Your task to perform on an android device: Open calendar and show me the fourth week of next month Image 0: 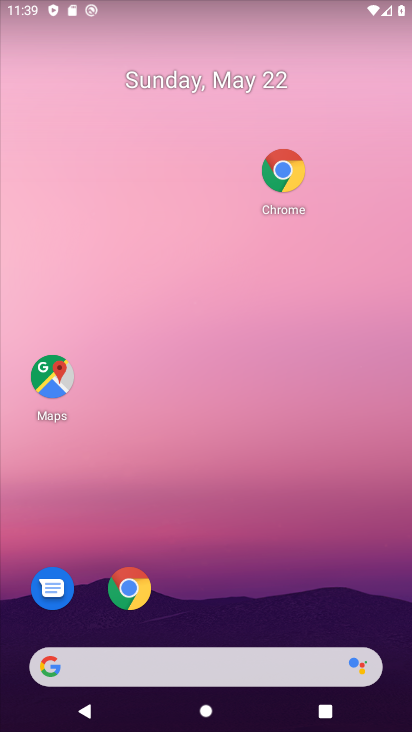
Step 0: drag from (324, 594) to (233, 215)
Your task to perform on an android device: Open calendar and show me the fourth week of next month Image 1: 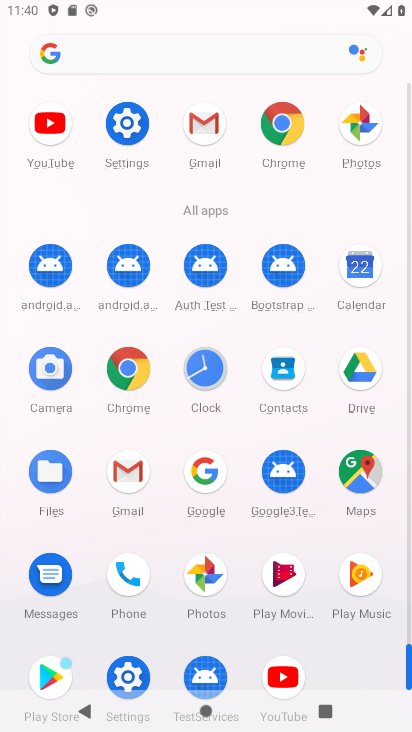
Step 1: click (360, 266)
Your task to perform on an android device: Open calendar and show me the fourth week of next month Image 2: 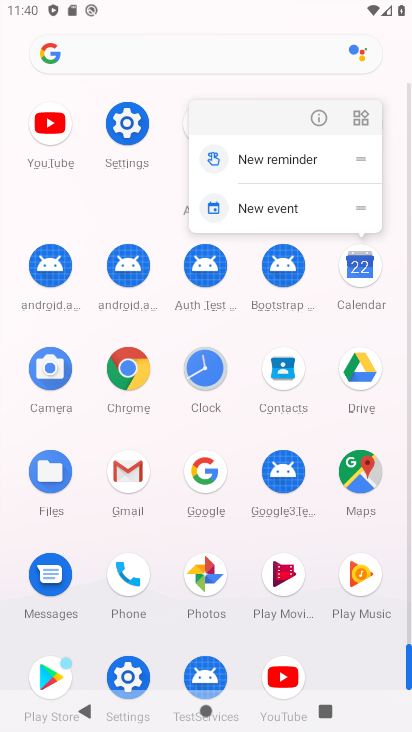
Step 2: click (361, 277)
Your task to perform on an android device: Open calendar and show me the fourth week of next month Image 3: 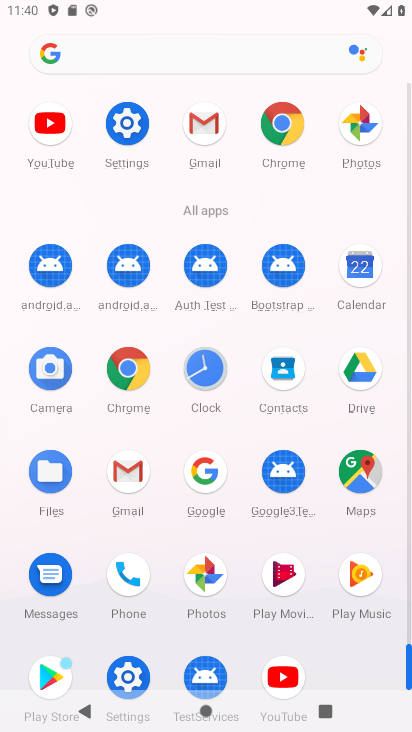
Step 3: click (372, 270)
Your task to perform on an android device: Open calendar and show me the fourth week of next month Image 4: 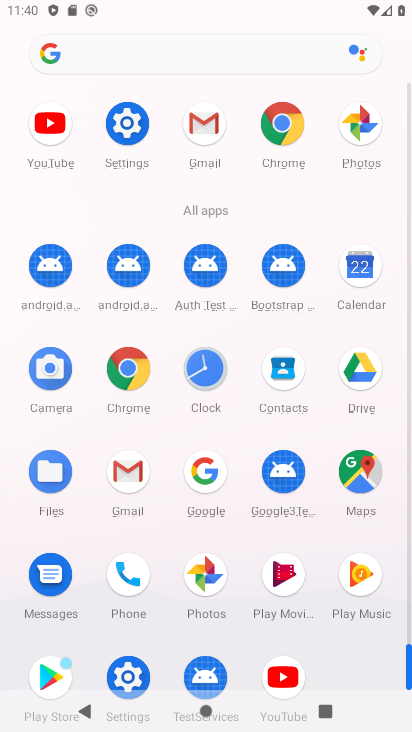
Step 4: click (370, 276)
Your task to perform on an android device: Open calendar and show me the fourth week of next month Image 5: 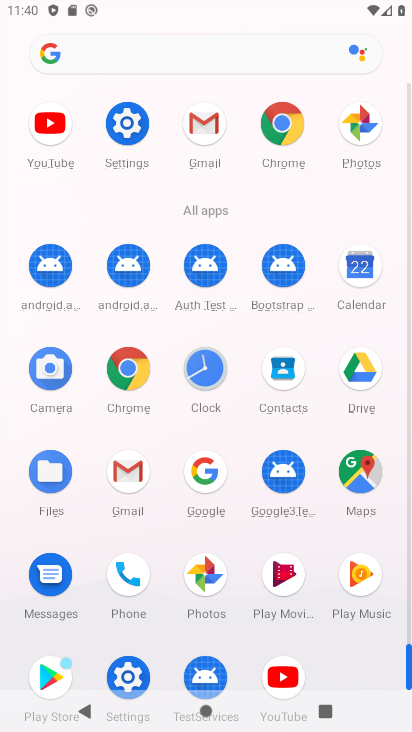
Step 5: click (370, 276)
Your task to perform on an android device: Open calendar and show me the fourth week of next month Image 6: 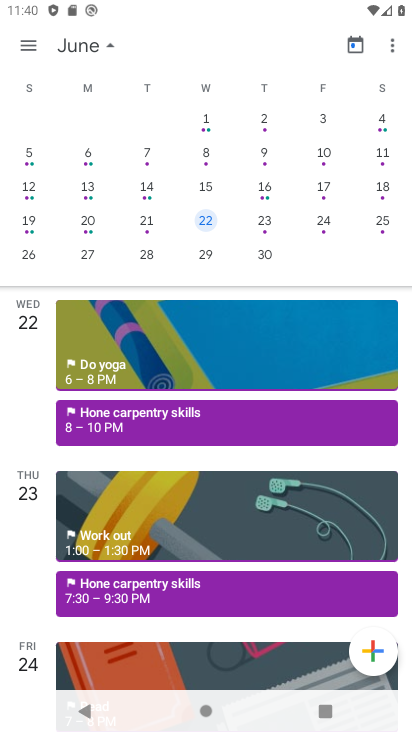
Step 6: drag from (327, 193) to (21, 156)
Your task to perform on an android device: Open calendar and show me the fourth week of next month Image 7: 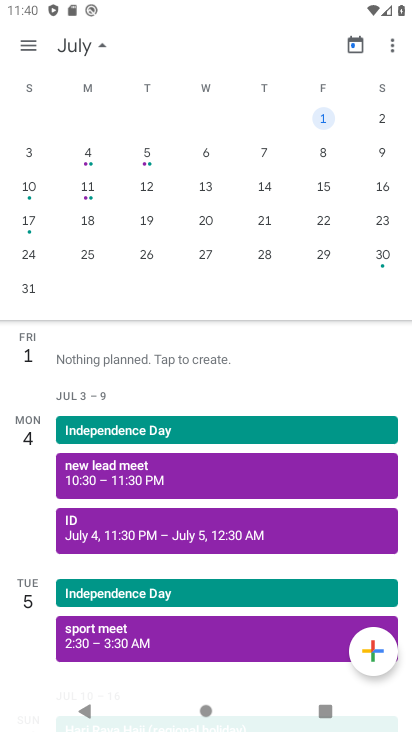
Step 7: drag from (302, 229) to (21, 191)
Your task to perform on an android device: Open calendar and show me the fourth week of next month Image 8: 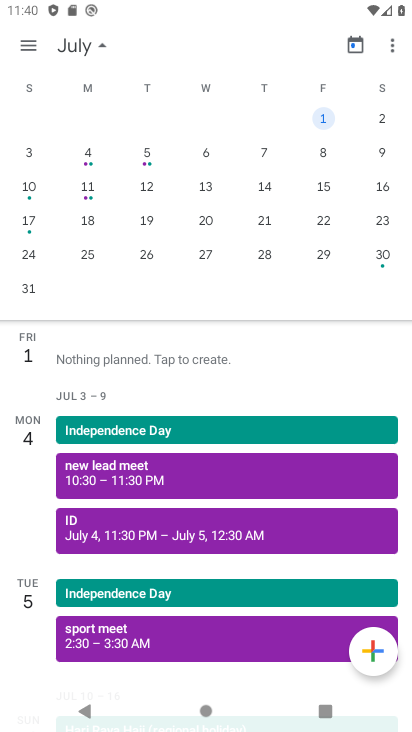
Step 8: drag from (80, 197) to (404, 218)
Your task to perform on an android device: Open calendar and show me the fourth week of next month Image 9: 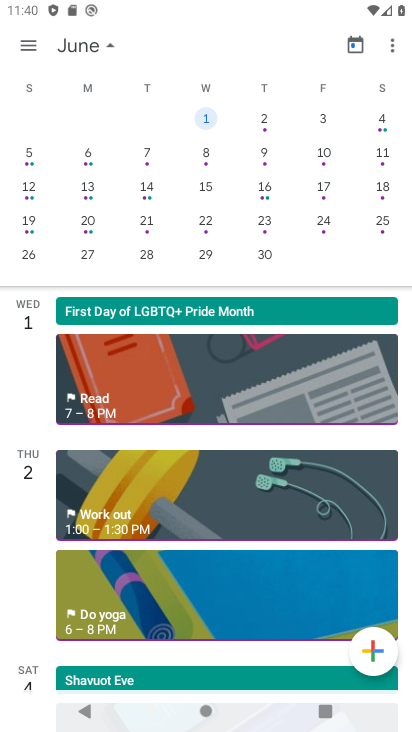
Step 9: click (204, 221)
Your task to perform on an android device: Open calendar and show me the fourth week of next month Image 10: 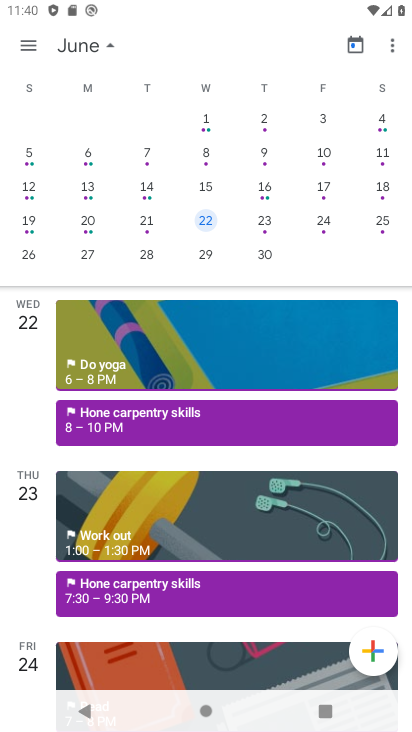
Step 10: click (203, 219)
Your task to perform on an android device: Open calendar and show me the fourth week of next month Image 11: 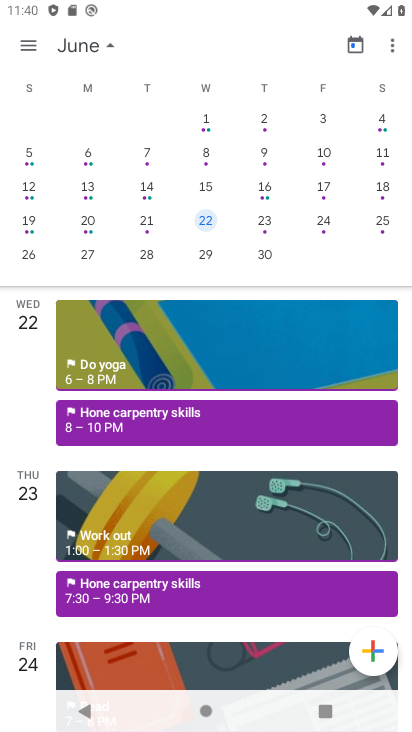
Step 11: click (208, 212)
Your task to perform on an android device: Open calendar and show me the fourth week of next month Image 12: 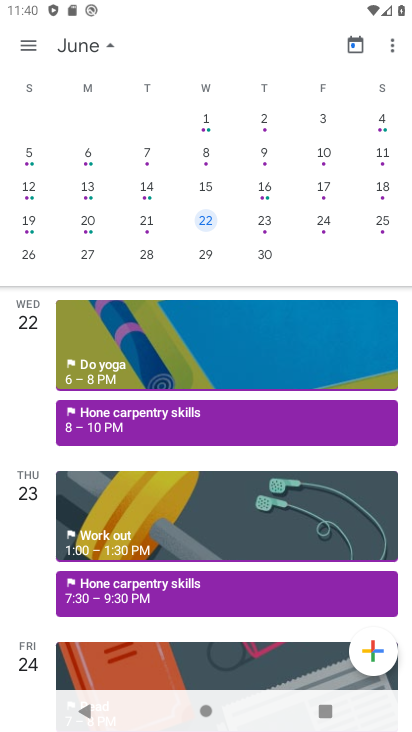
Step 12: click (211, 209)
Your task to perform on an android device: Open calendar and show me the fourth week of next month Image 13: 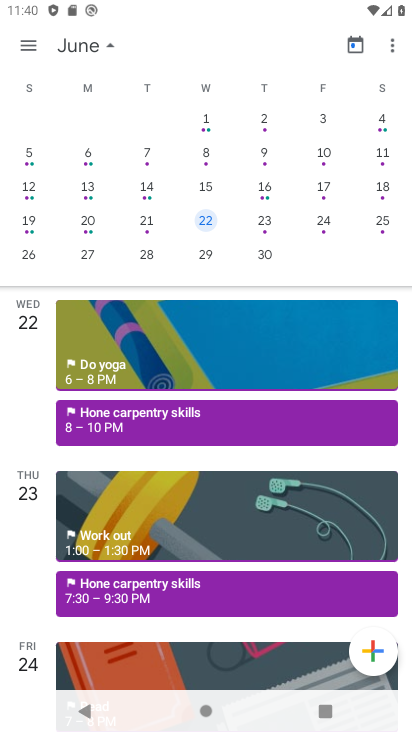
Step 13: task complete